Your task to perform on an android device: Search for Italian restaurants on Maps Image 0: 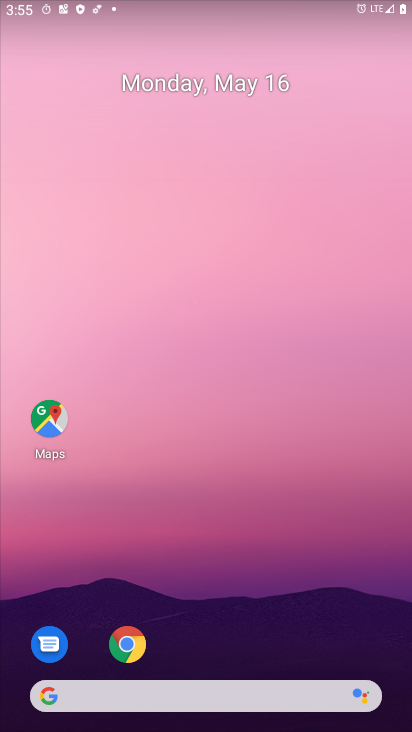
Step 0: drag from (275, 678) to (222, 92)
Your task to perform on an android device: Search for Italian restaurants on Maps Image 1: 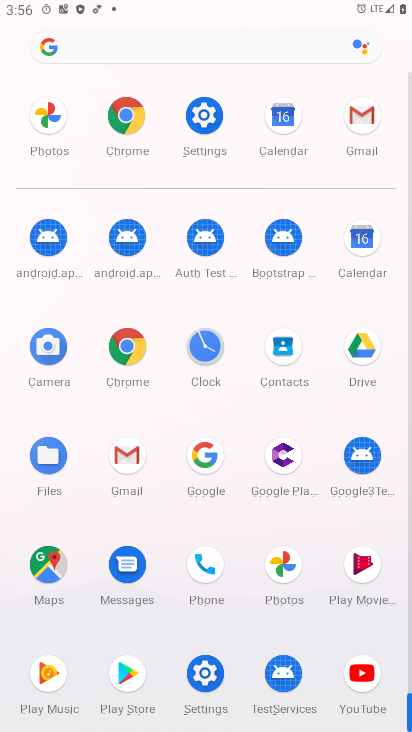
Step 1: click (50, 582)
Your task to perform on an android device: Search for Italian restaurants on Maps Image 2: 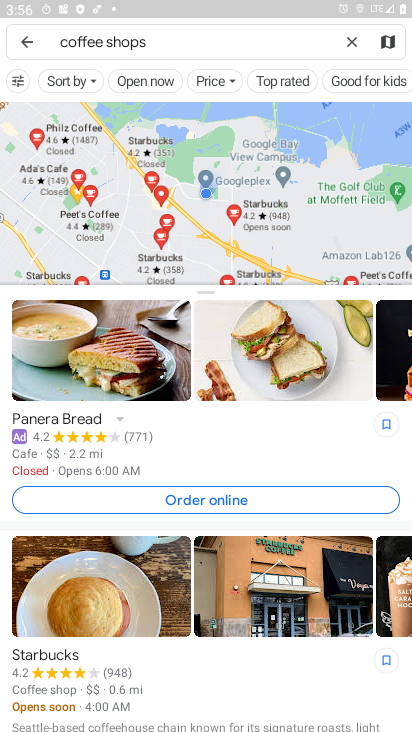
Step 2: click (352, 39)
Your task to perform on an android device: Search for Italian restaurants on Maps Image 3: 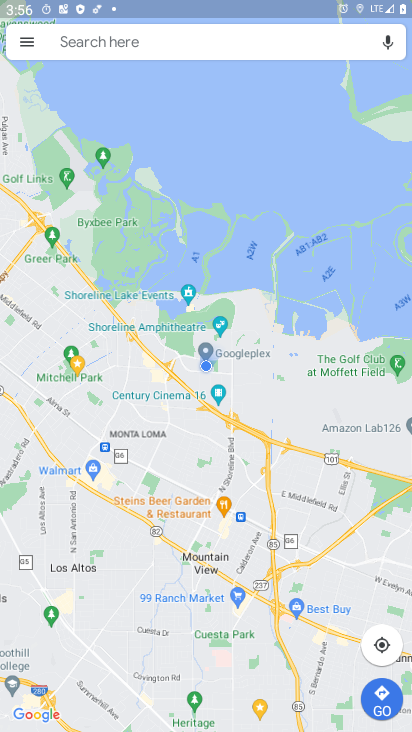
Step 3: click (302, 50)
Your task to perform on an android device: Search for Italian restaurants on Maps Image 4: 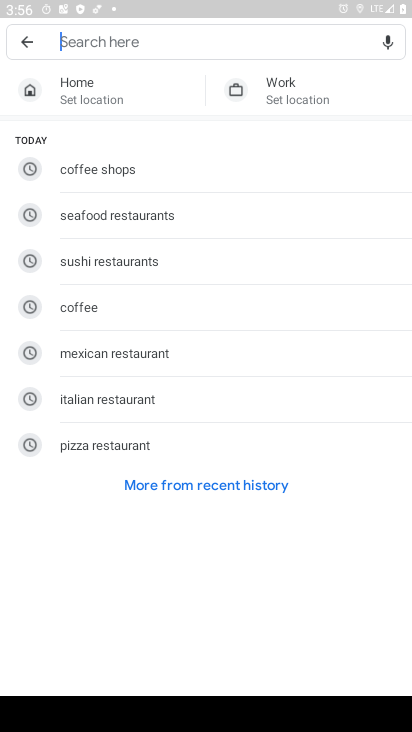
Step 4: click (128, 397)
Your task to perform on an android device: Search for Italian restaurants on Maps Image 5: 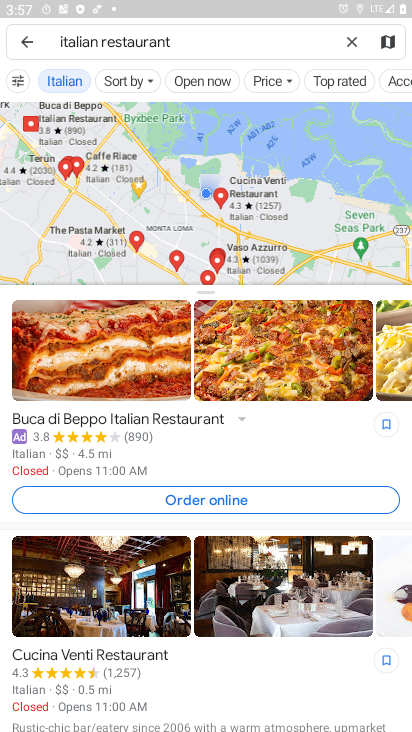
Step 5: task complete